Your task to perform on an android device: Open Android settings Image 0: 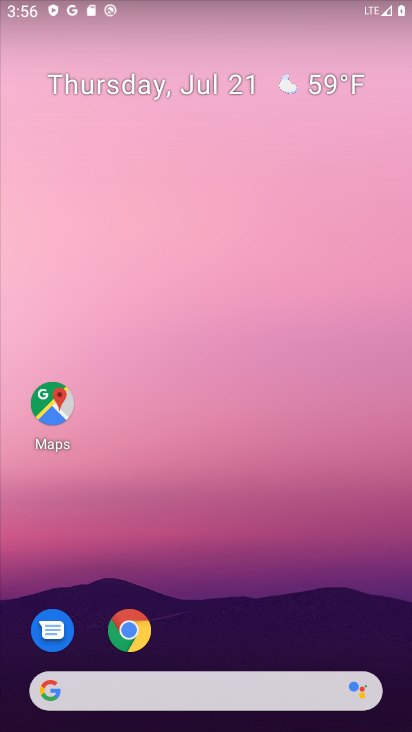
Step 0: drag from (287, 622) to (245, 2)
Your task to perform on an android device: Open Android settings Image 1: 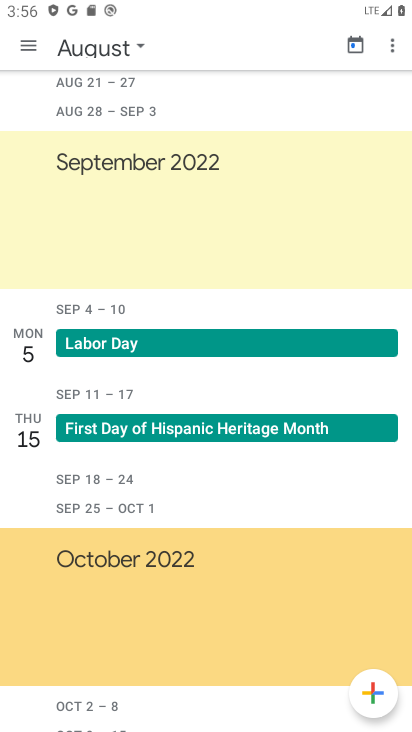
Step 1: press back button
Your task to perform on an android device: Open Android settings Image 2: 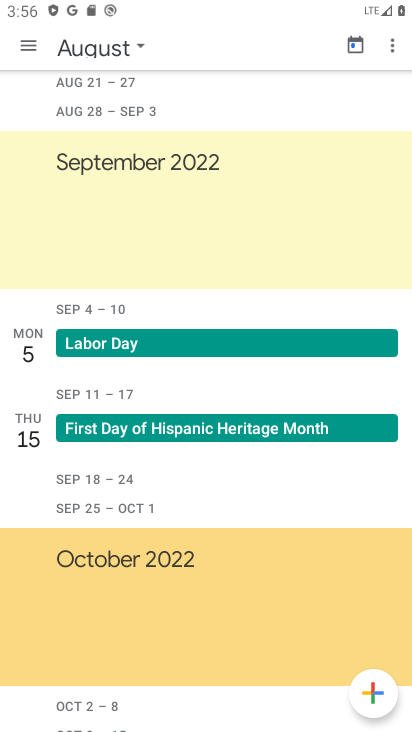
Step 2: press back button
Your task to perform on an android device: Open Android settings Image 3: 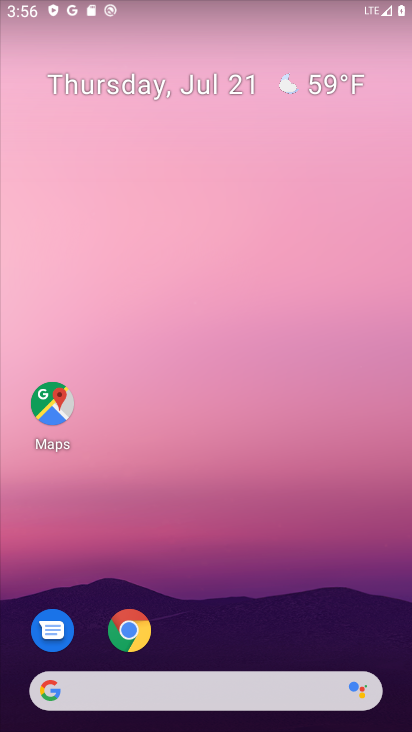
Step 3: drag from (204, 611) to (143, 53)
Your task to perform on an android device: Open Android settings Image 4: 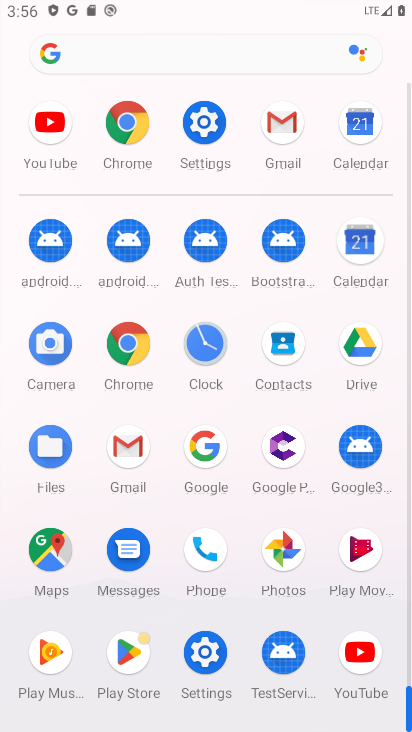
Step 4: drag from (224, 408) to (180, 104)
Your task to perform on an android device: Open Android settings Image 5: 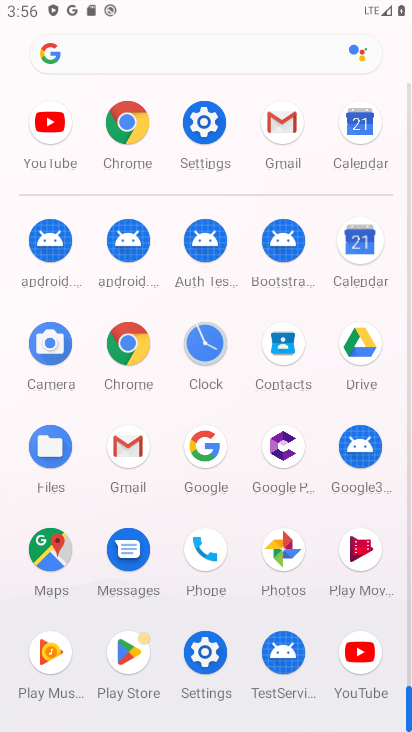
Step 5: click (203, 641)
Your task to perform on an android device: Open Android settings Image 6: 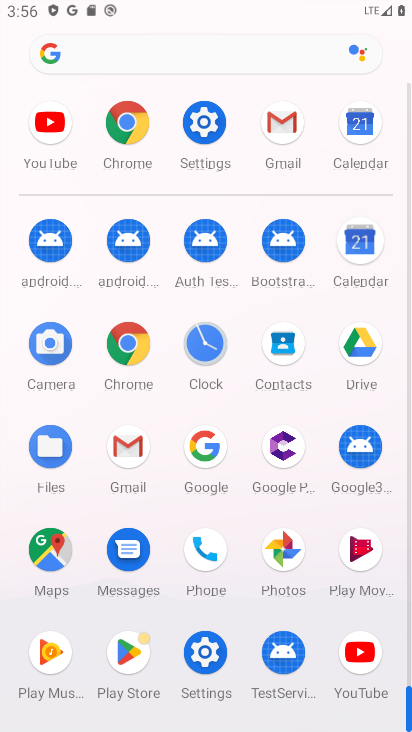
Step 6: click (203, 641)
Your task to perform on an android device: Open Android settings Image 7: 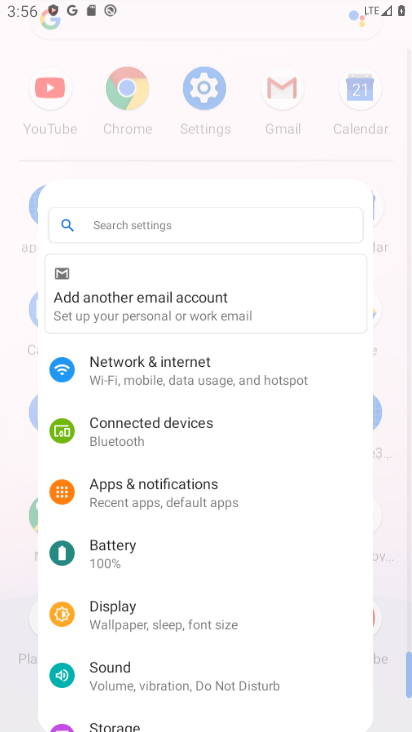
Step 7: click (206, 641)
Your task to perform on an android device: Open Android settings Image 8: 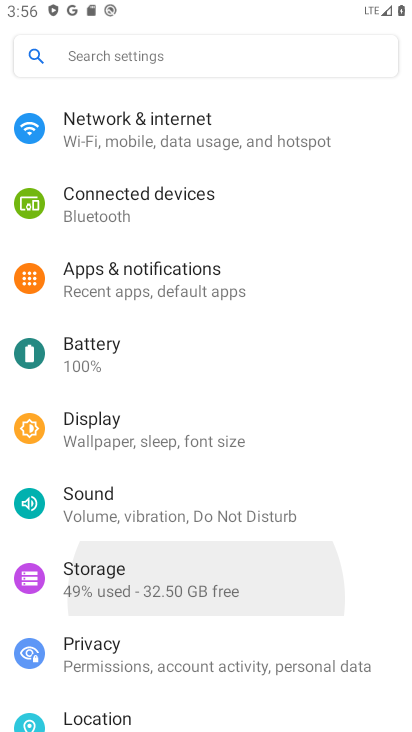
Step 8: click (205, 642)
Your task to perform on an android device: Open Android settings Image 9: 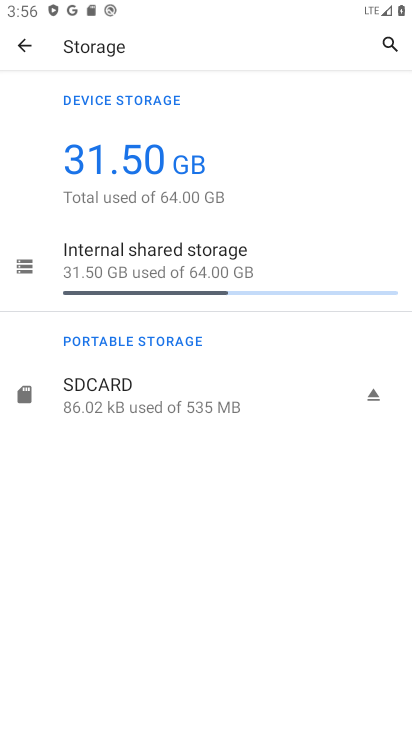
Step 9: click (13, 37)
Your task to perform on an android device: Open Android settings Image 10: 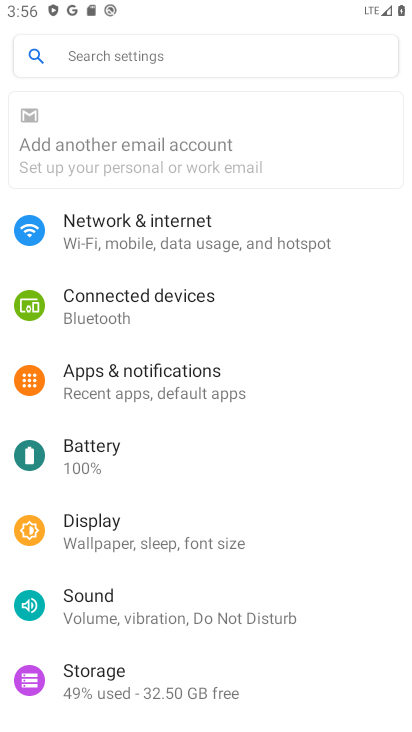
Step 10: drag from (142, 552) to (82, 134)
Your task to perform on an android device: Open Android settings Image 11: 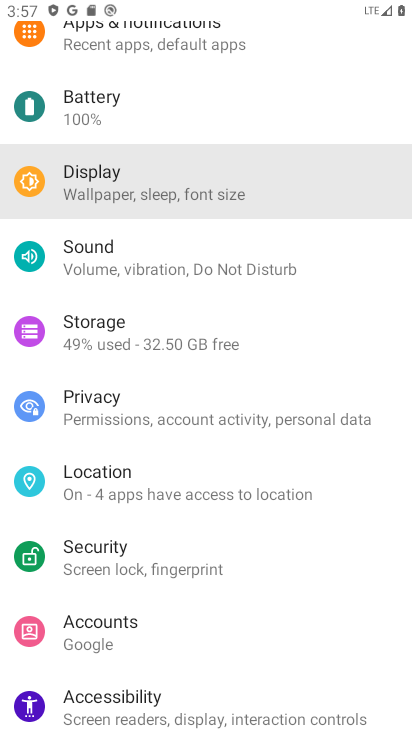
Step 11: drag from (88, 560) to (74, 271)
Your task to perform on an android device: Open Android settings Image 12: 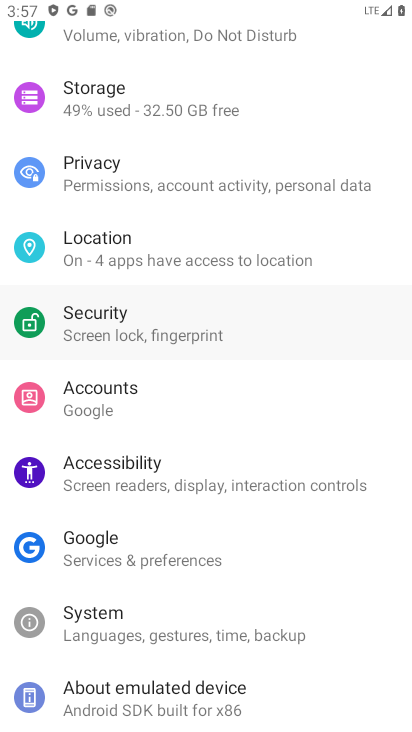
Step 12: drag from (130, 521) to (126, 371)
Your task to perform on an android device: Open Android settings Image 13: 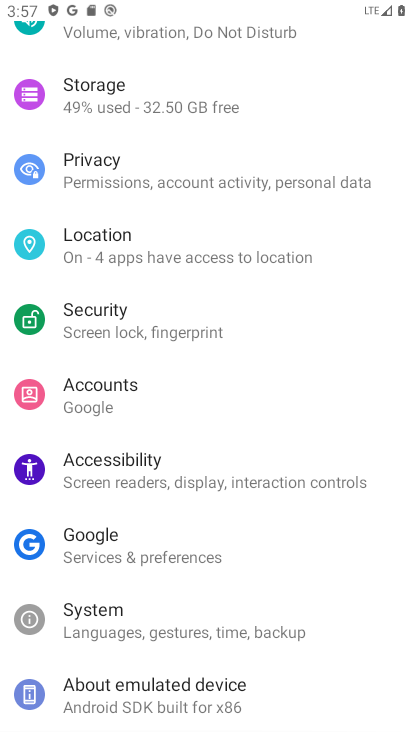
Step 13: drag from (110, 633) to (103, 226)
Your task to perform on an android device: Open Android settings Image 14: 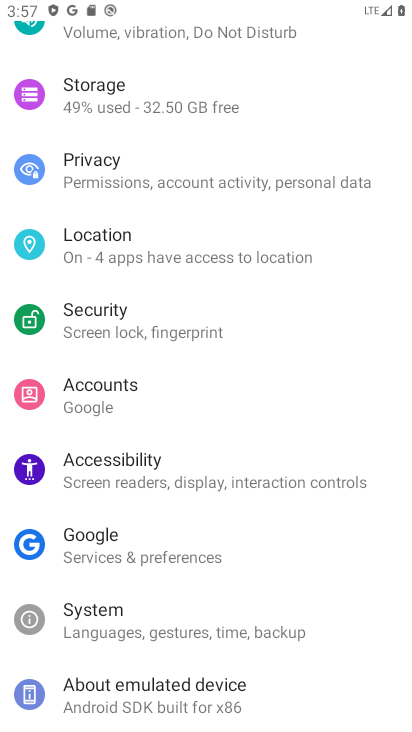
Step 14: click (154, 692)
Your task to perform on an android device: Open Android settings Image 15: 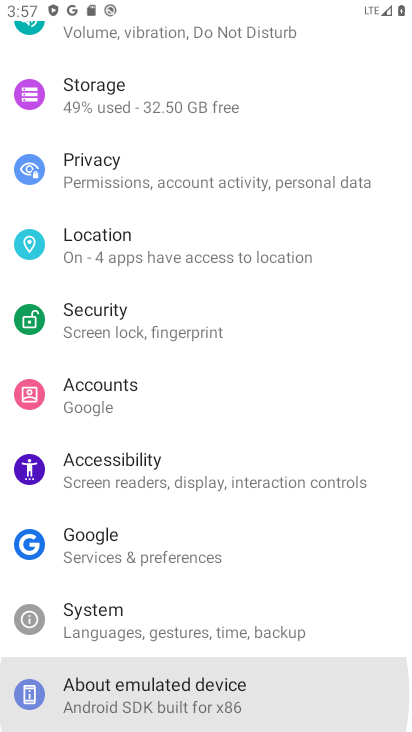
Step 15: click (154, 689)
Your task to perform on an android device: Open Android settings Image 16: 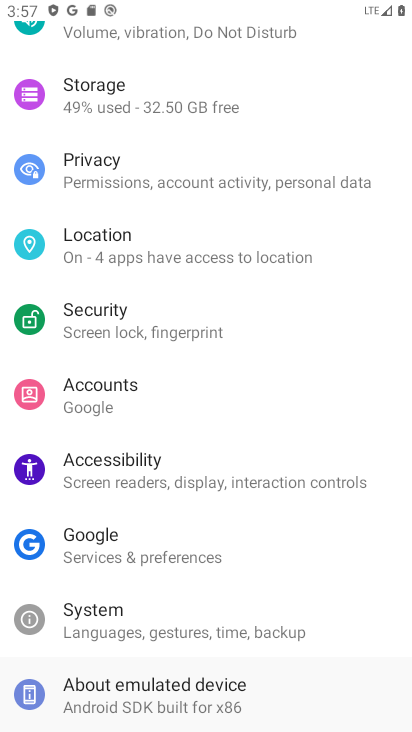
Step 16: click (154, 689)
Your task to perform on an android device: Open Android settings Image 17: 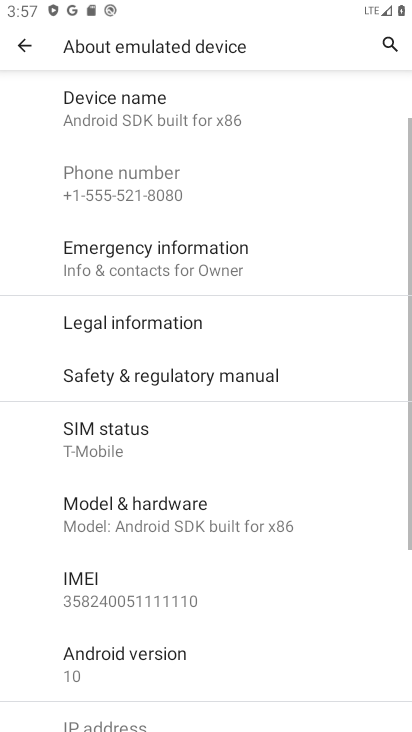
Step 17: task complete